Your task to perform on an android device: read, delete, or share a saved page in the chrome app Image 0: 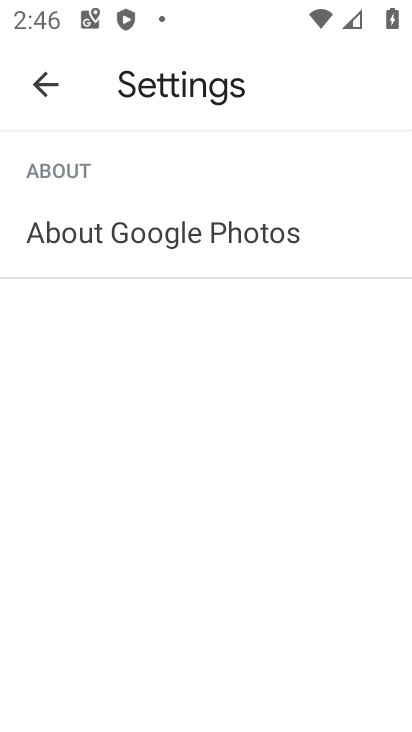
Step 0: press home button
Your task to perform on an android device: read, delete, or share a saved page in the chrome app Image 1: 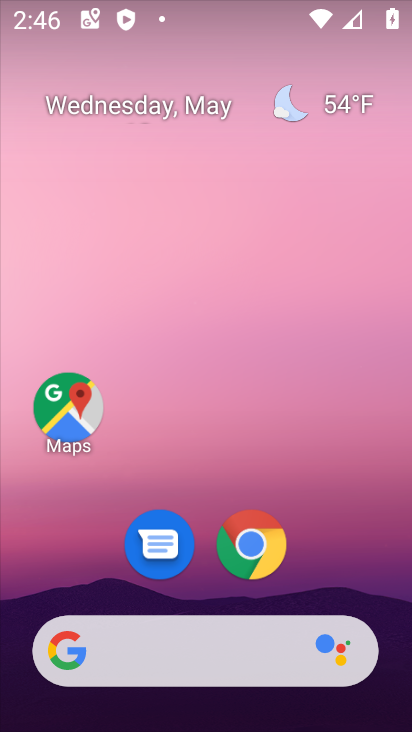
Step 1: click (265, 561)
Your task to perform on an android device: read, delete, or share a saved page in the chrome app Image 2: 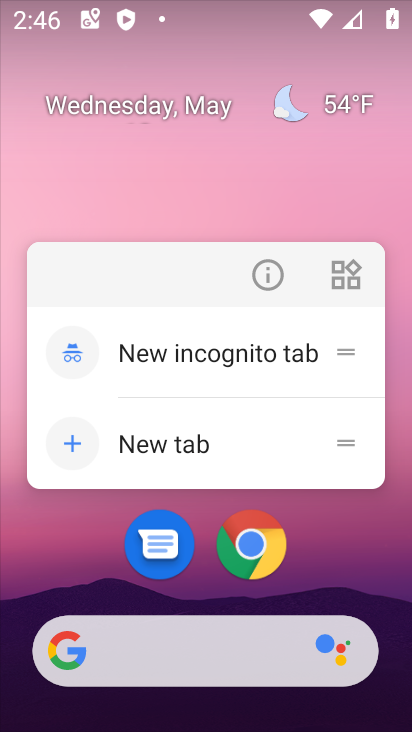
Step 2: click (265, 561)
Your task to perform on an android device: read, delete, or share a saved page in the chrome app Image 3: 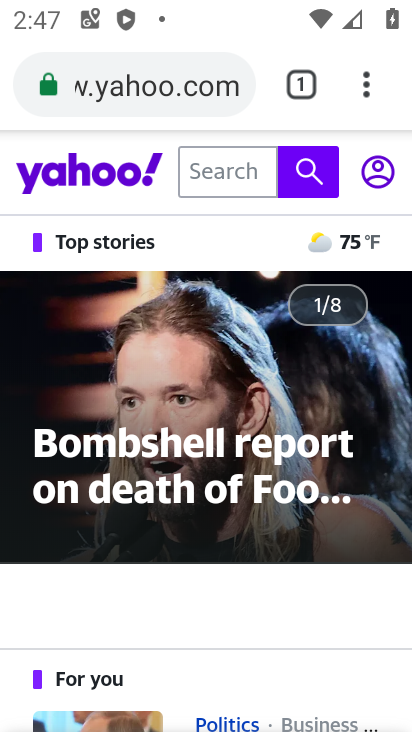
Step 3: click (373, 61)
Your task to perform on an android device: read, delete, or share a saved page in the chrome app Image 4: 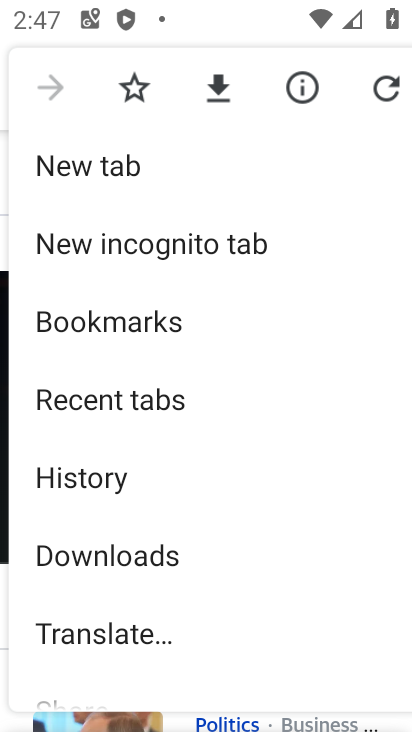
Step 4: drag from (115, 397) to (81, 516)
Your task to perform on an android device: read, delete, or share a saved page in the chrome app Image 5: 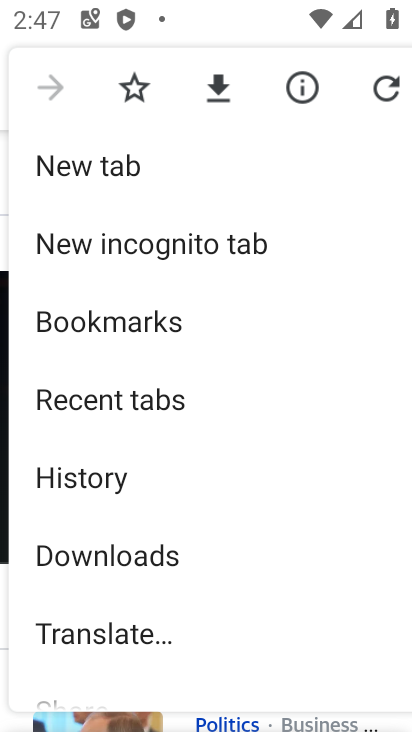
Step 5: click (81, 552)
Your task to perform on an android device: read, delete, or share a saved page in the chrome app Image 6: 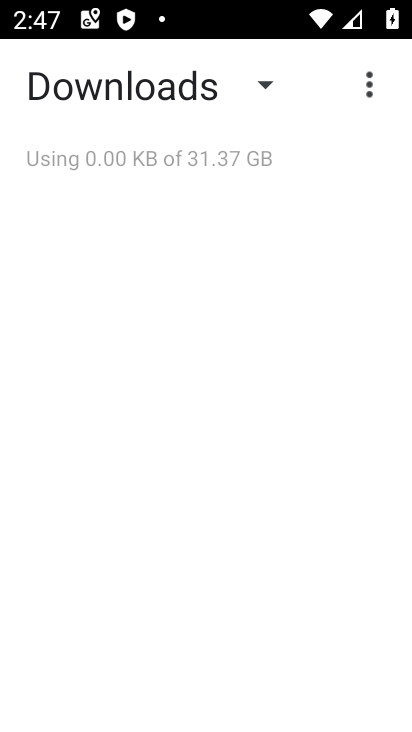
Step 6: task complete